Your task to perform on an android device: install app "Microsoft Outlook" Image 0: 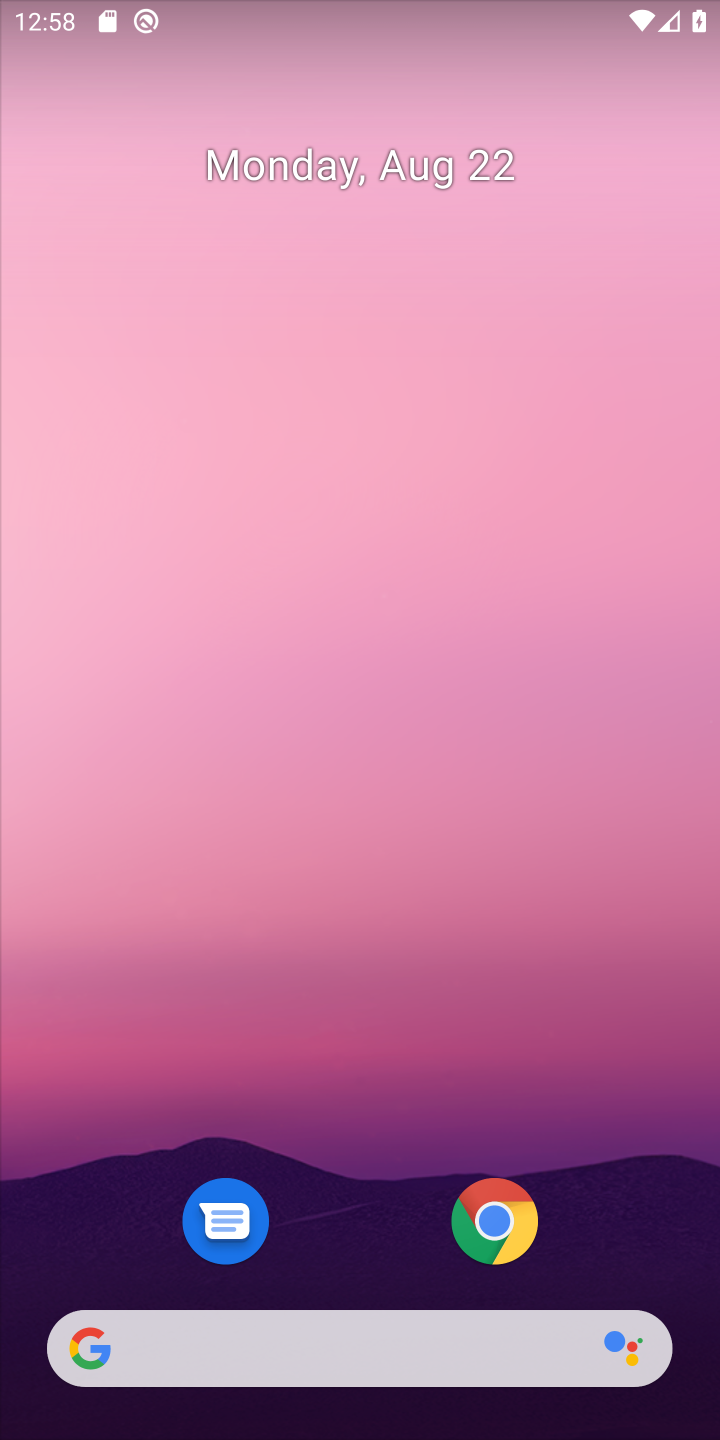
Step 0: press home button
Your task to perform on an android device: install app "Microsoft Outlook" Image 1: 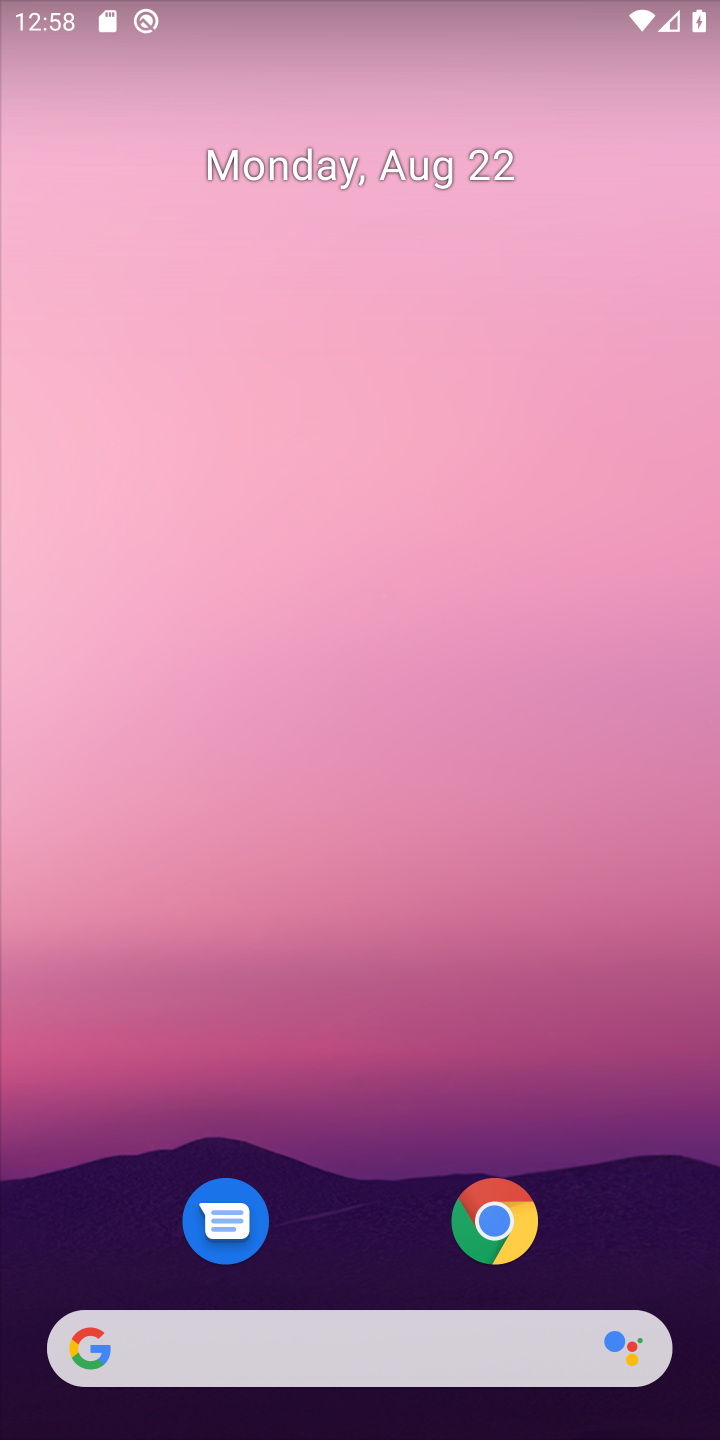
Step 1: press home button
Your task to perform on an android device: install app "Microsoft Outlook" Image 2: 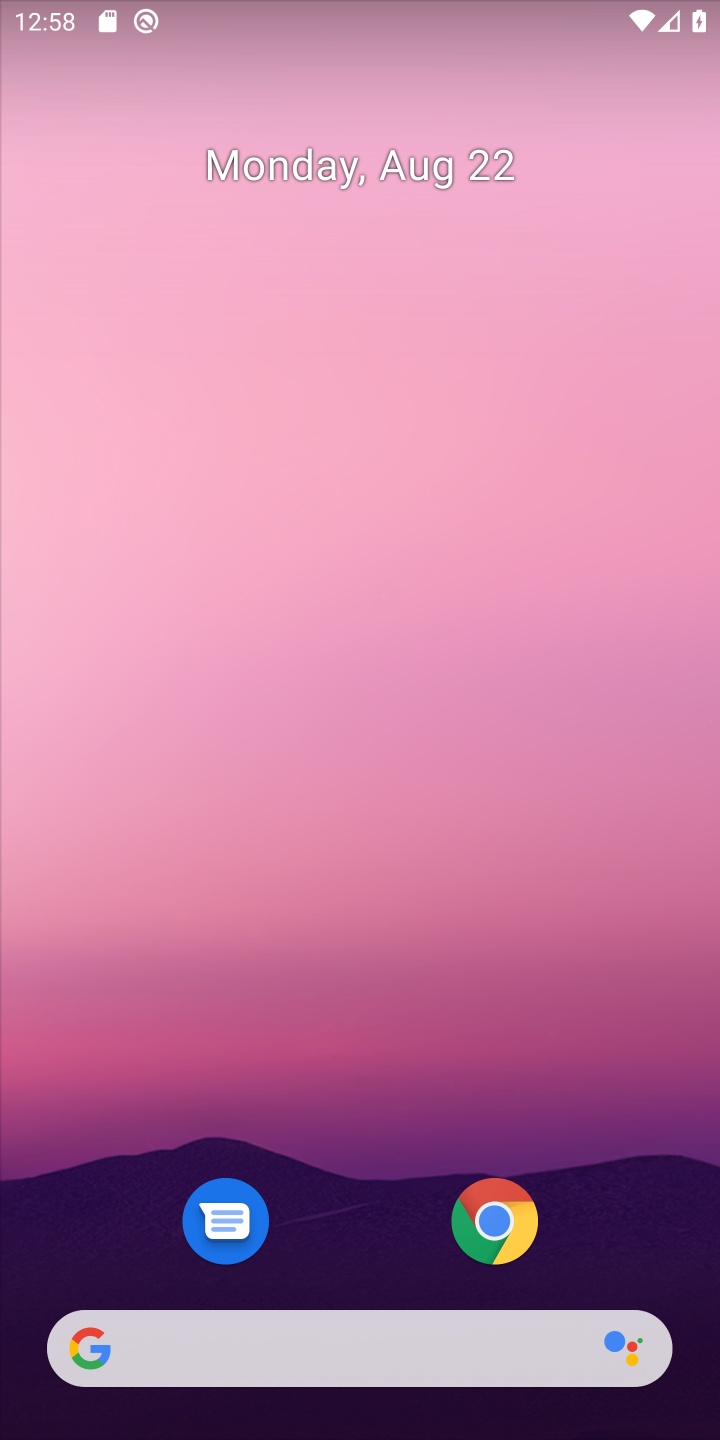
Step 2: drag from (364, 1256) to (474, 70)
Your task to perform on an android device: install app "Microsoft Outlook" Image 3: 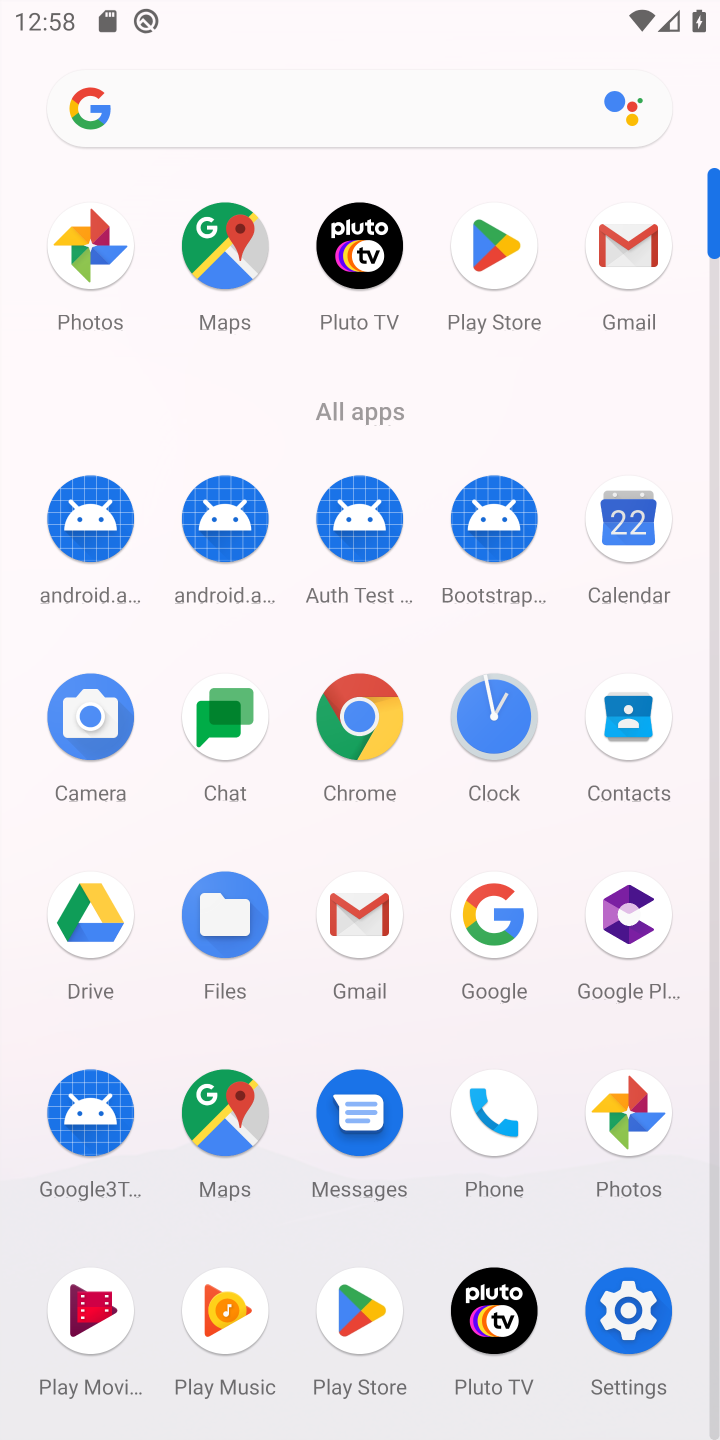
Step 3: click (352, 1304)
Your task to perform on an android device: install app "Microsoft Outlook" Image 4: 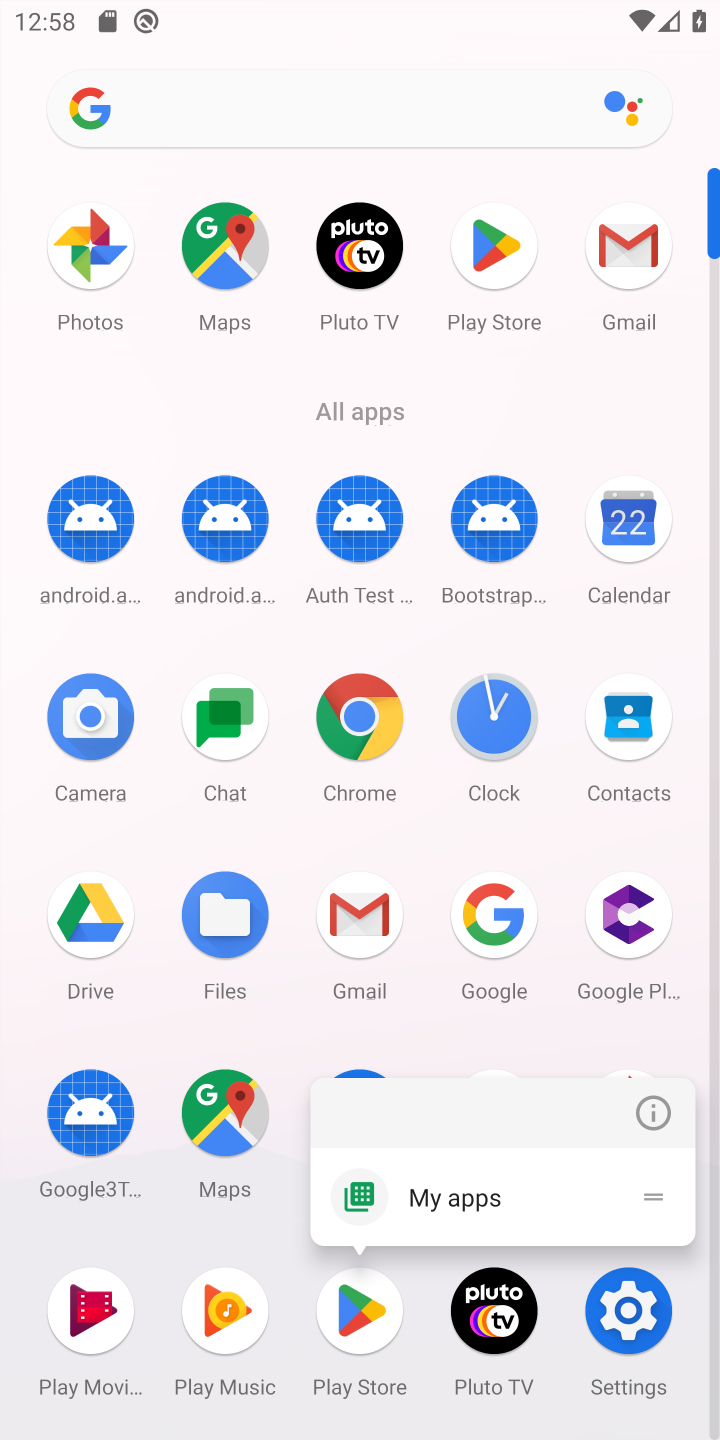
Step 4: click (352, 1304)
Your task to perform on an android device: install app "Microsoft Outlook" Image 5: 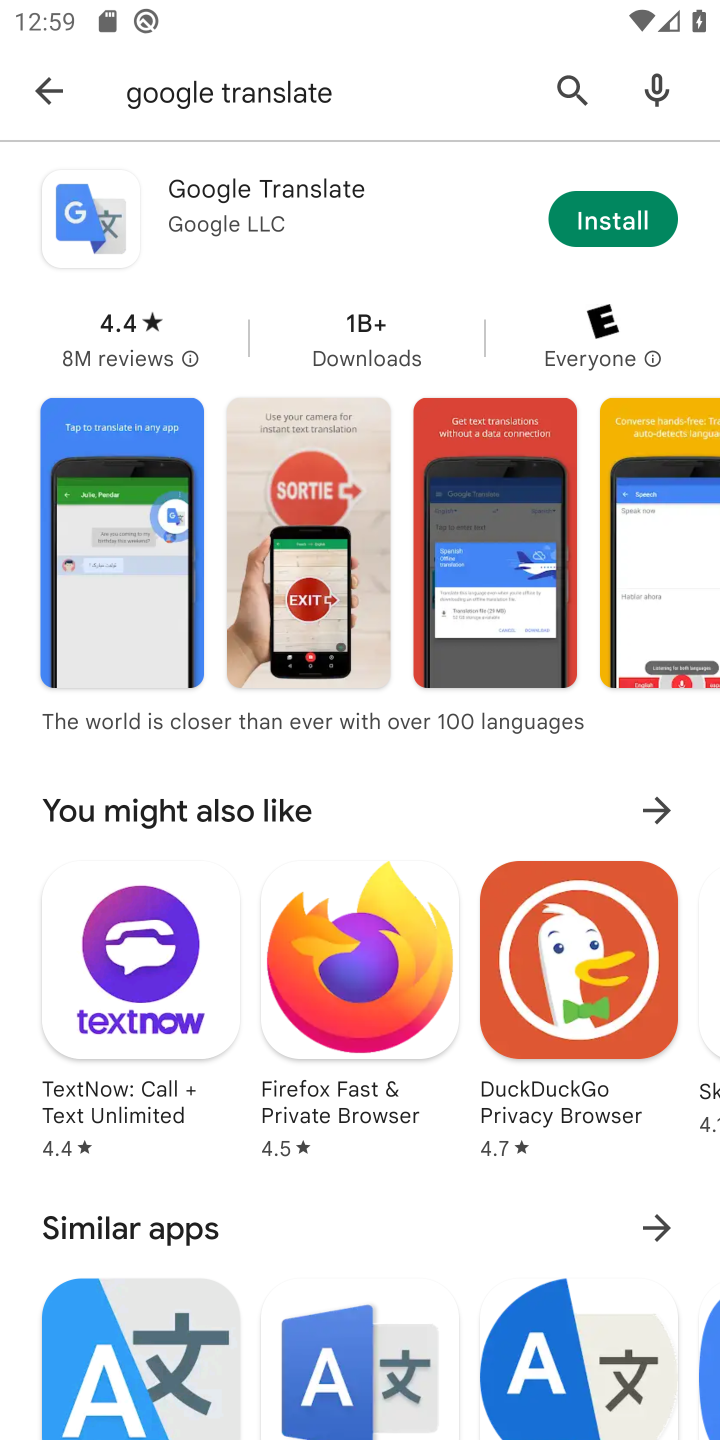
Step 5: click (575, 97)
Your task to perform on an android device: install app "Microsoft Outlook" Image 6: 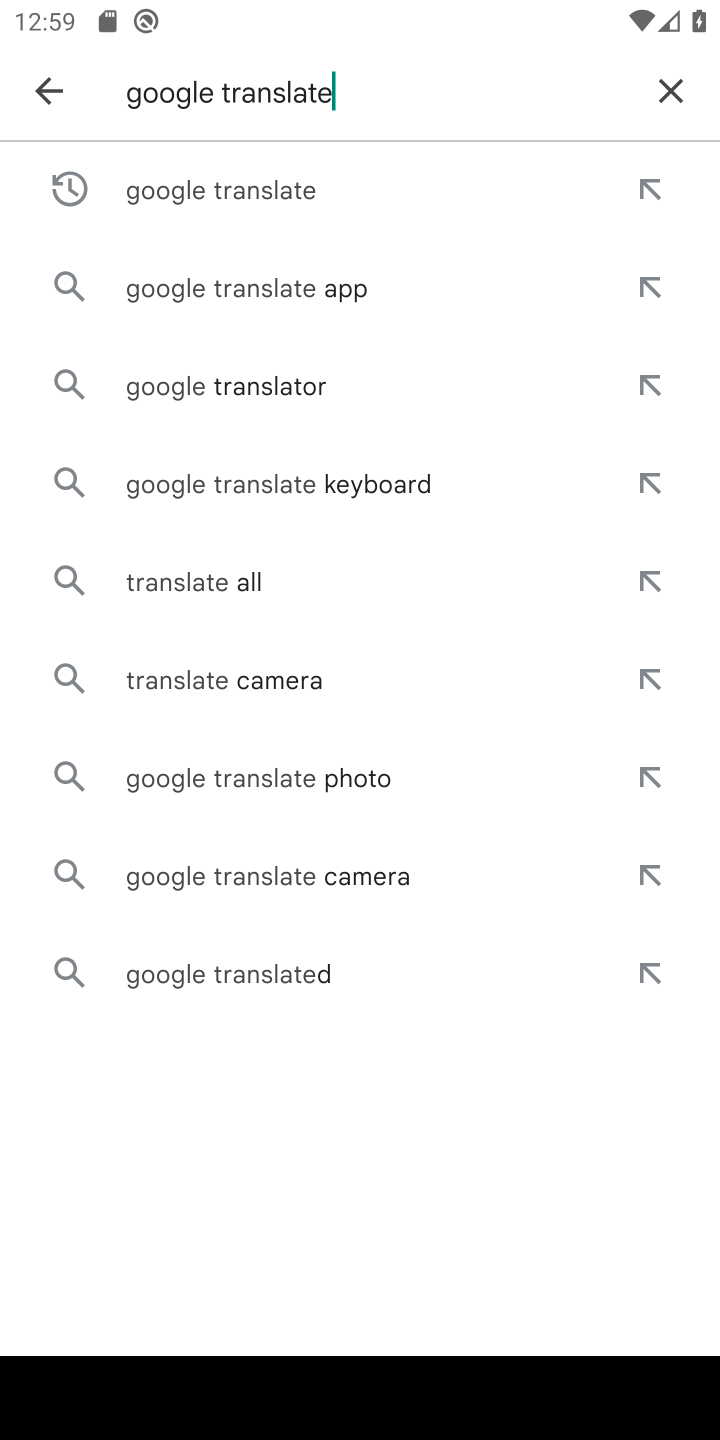
Step 6: click (674, 88)
Your task to perform on an android device: install app "Microsoft Outlook" Image 7: 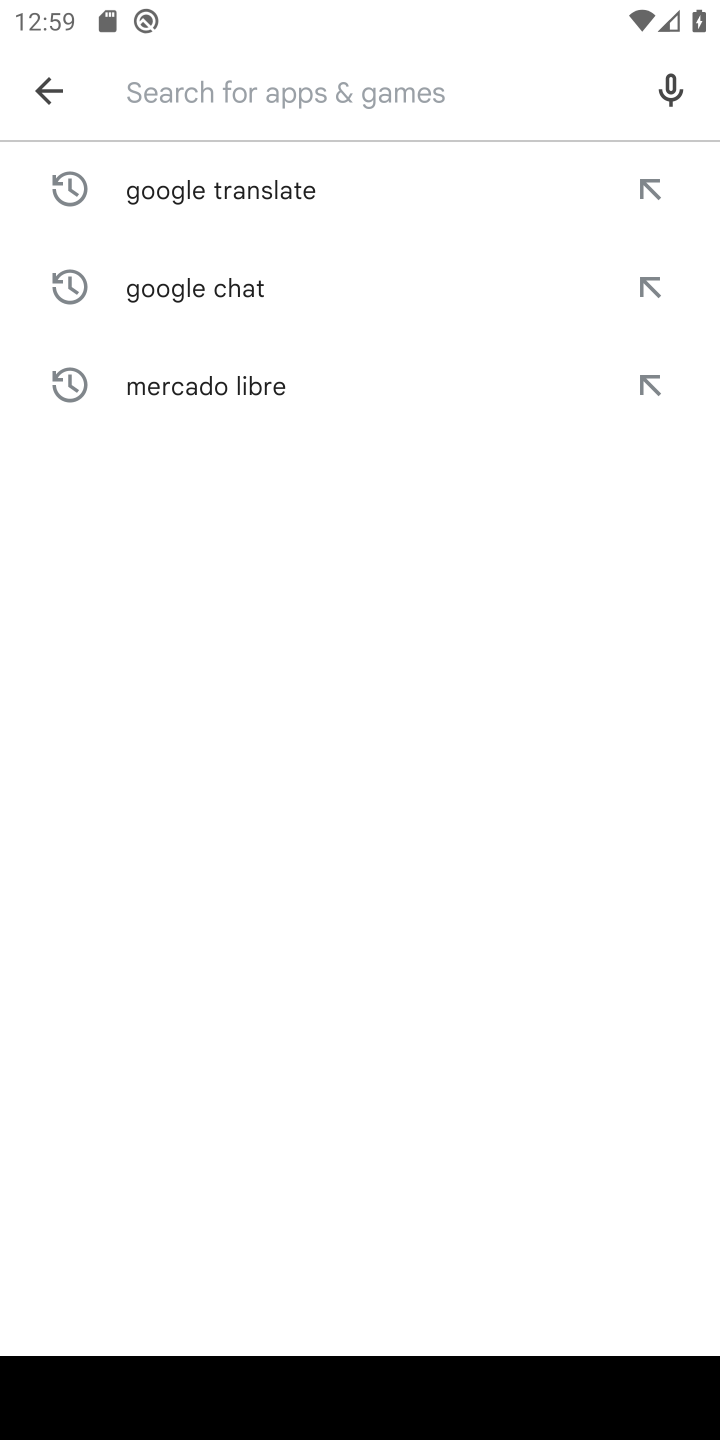
Step 7: type "Microsoft Outlook"
Your task to perform on an android device: install app "Microsoft Outlook" Image 8: 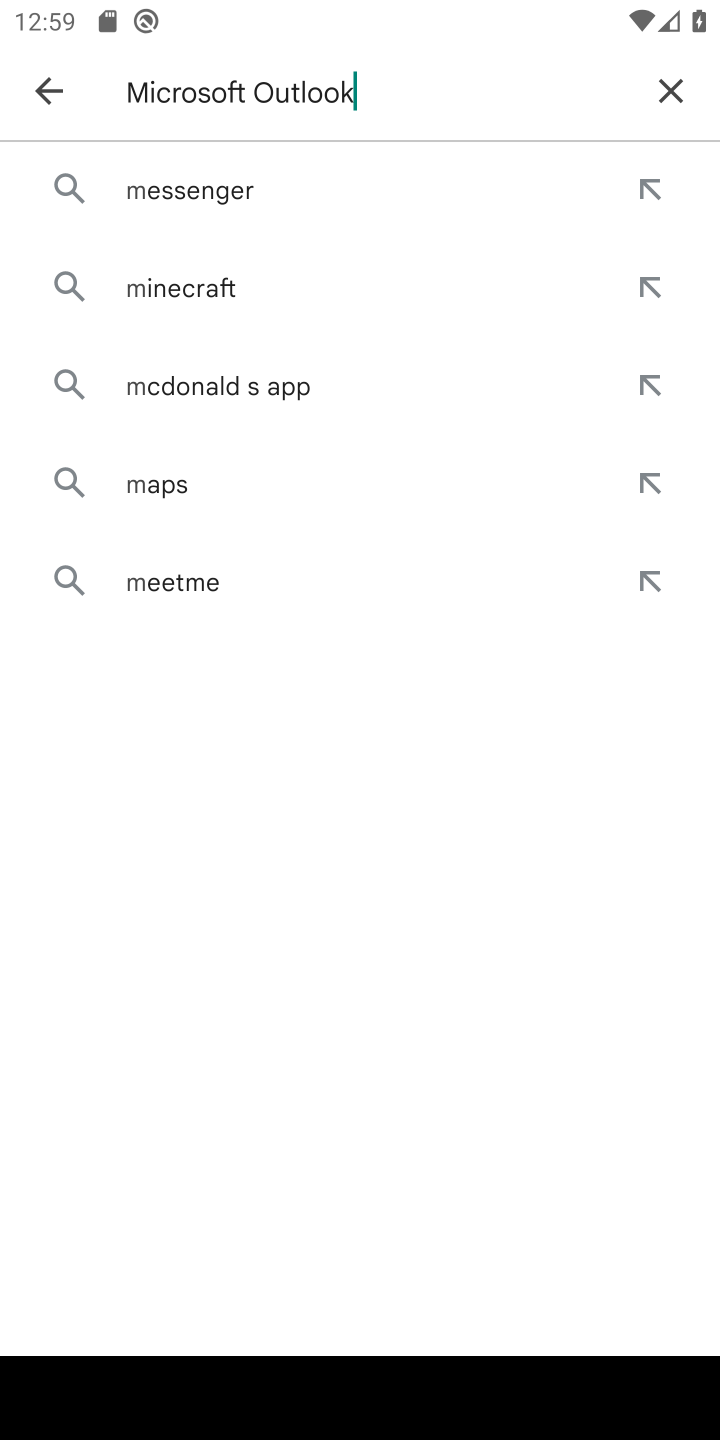
Step 8: type ""
Your task to perform on an android device: install app "Microsoft Outlook" Image 9: 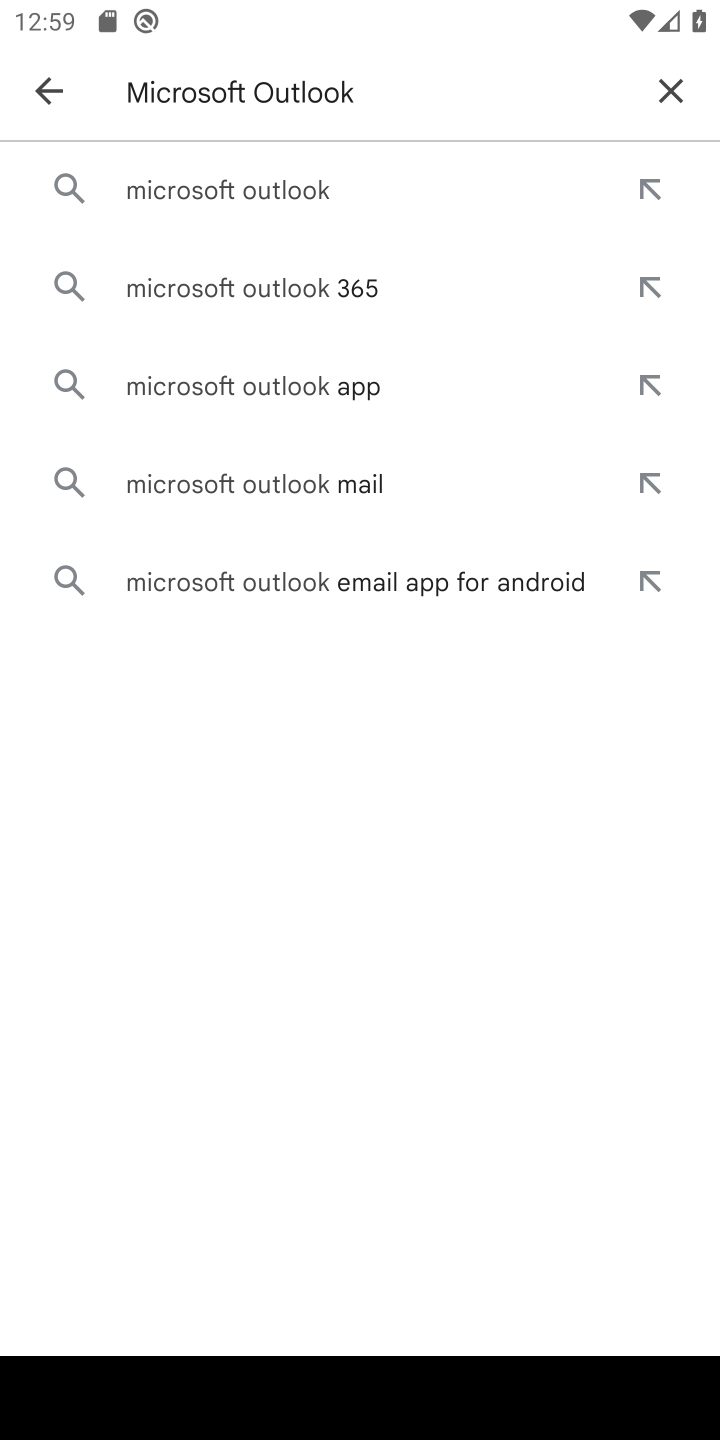
Step 9: click (347, 184)
Your task to perform on an android device: install app "Microsoft Outlook" Image 10: 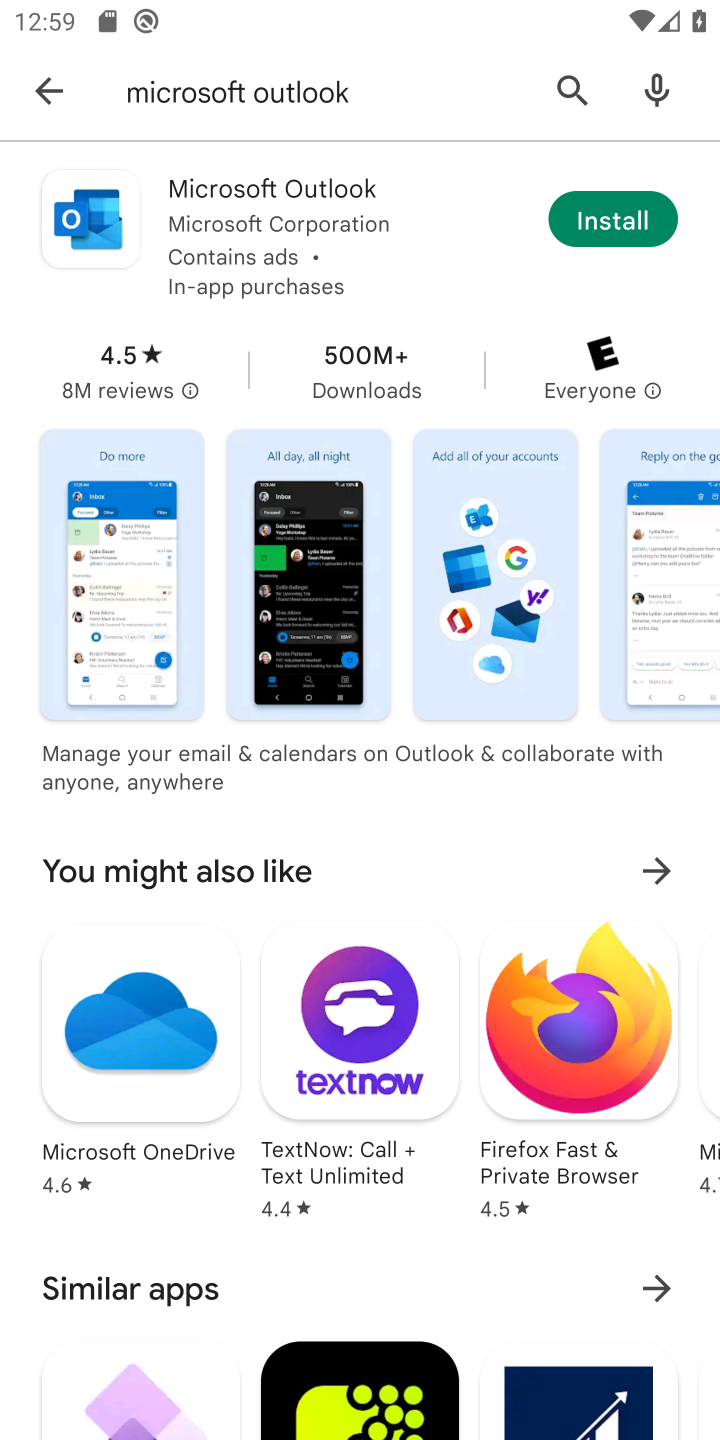
Step 10: click (617, 216)
Your task to perform on an android device: install app "Microsoft Outlook" Image 11: 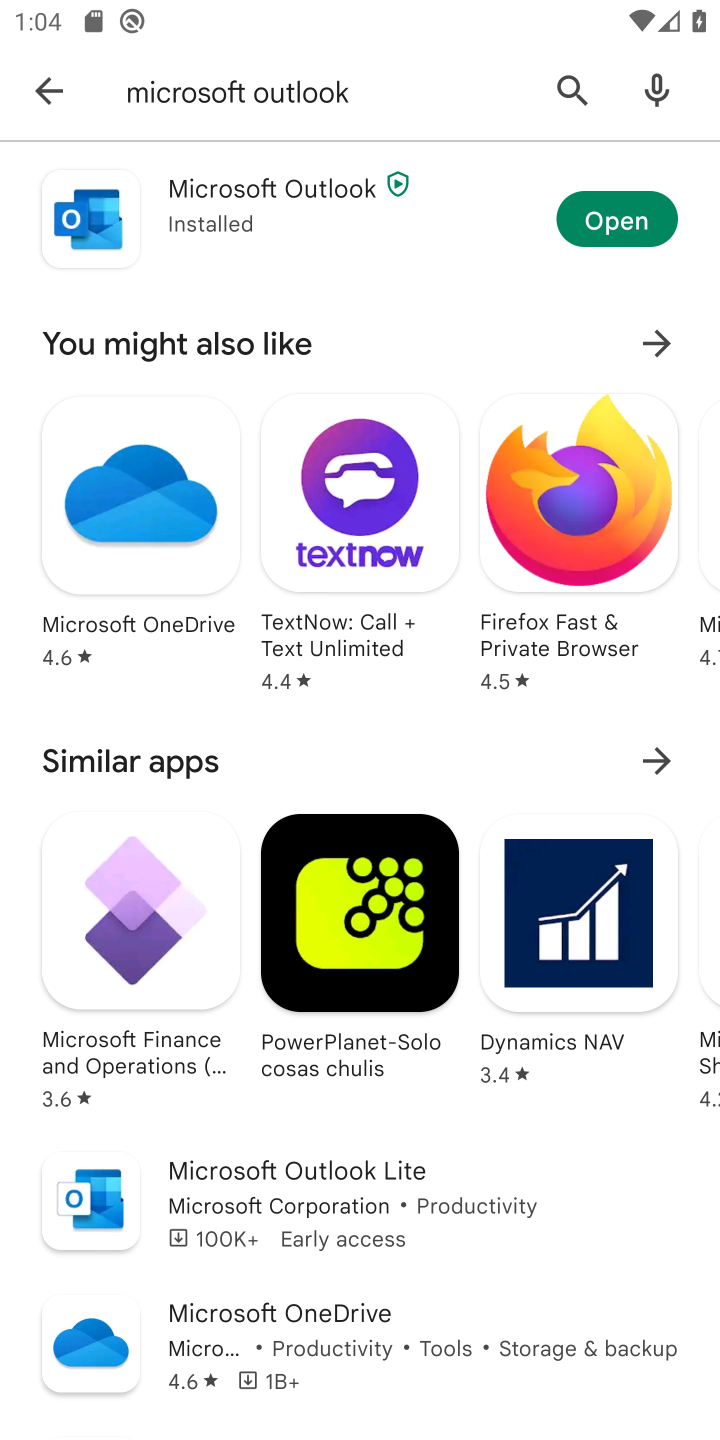
Step 11: click (603, 223)
Your task to perform on an android device: install app "Microsoft Outlook" Image 12: 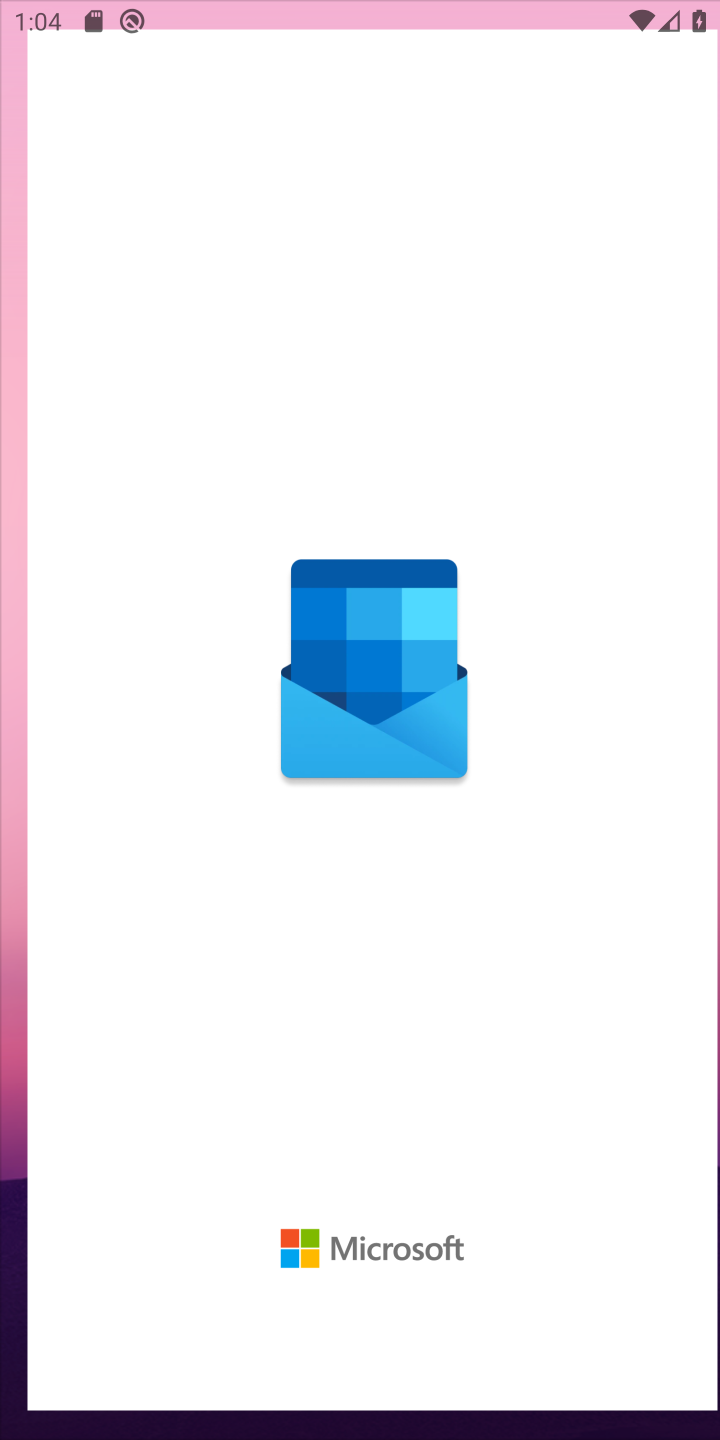
Step 12: task complete